Your task to perform on an android device: open device folders in google photos Image 0: 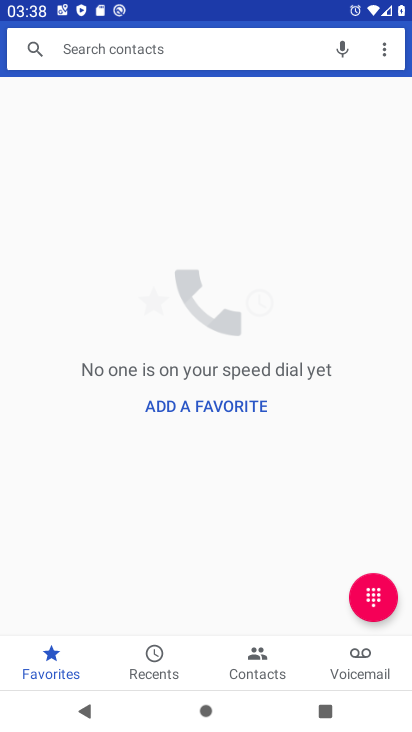
Step 0: press home button
Your task to perform on an android device: open device folders in google photos Image 1: 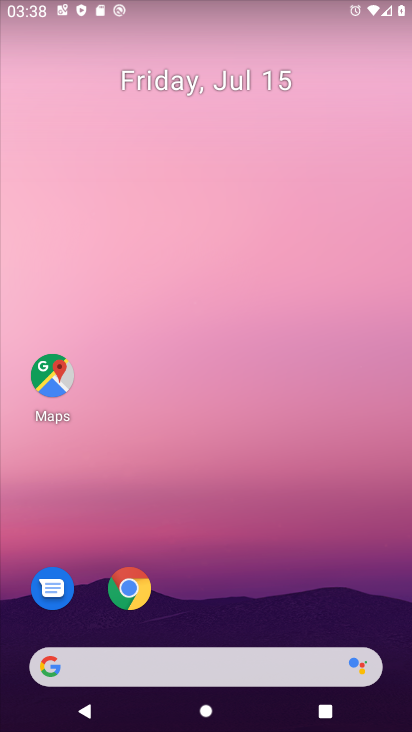
Step 1: drag from (230, 660) to (273, 218)
Your task to perform on an android device: open device folders in google photos Image 2: 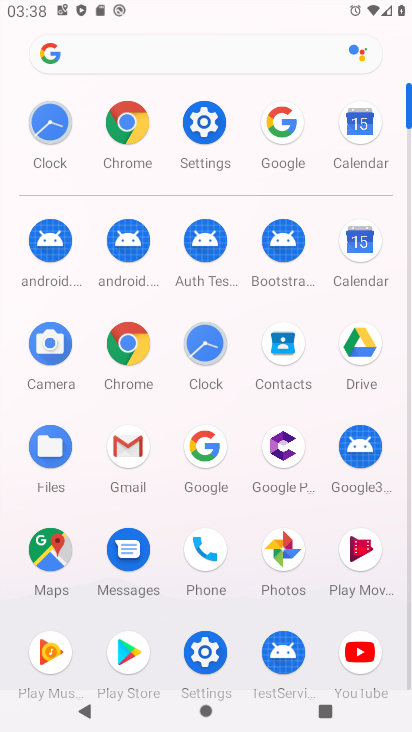
Step 2: click (284, 548)
Your task to perform on an android device: open device folders in google photos Image 3: 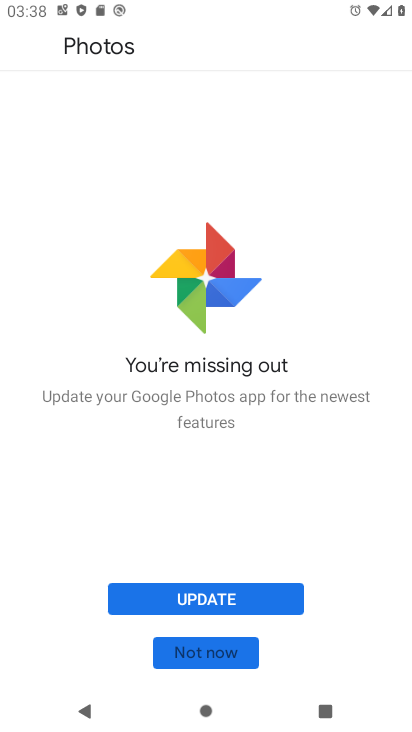
Step 3: click (219, 600)
Your task to perform on an android device: open device folders in google photos Image 4: 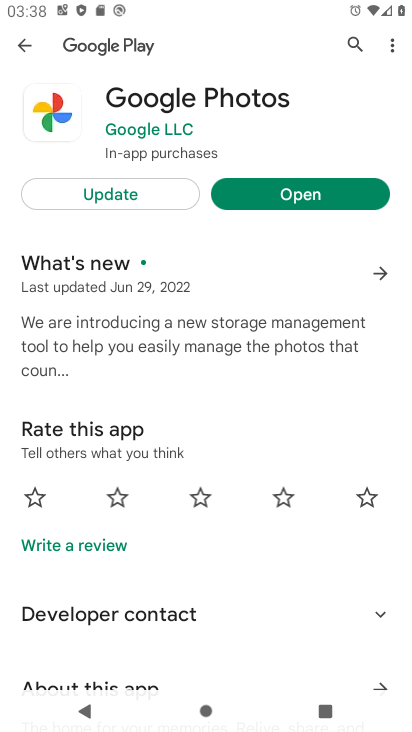
Step 4: click (127, 196)
Your task to perform on an android device: open device folders in google photos Image 5: 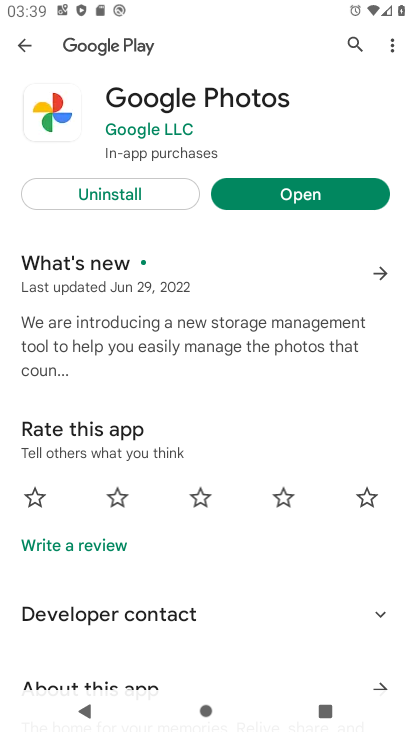
Step 5: click (305, 197)
Your task to perform on an android device: open device folders in google photos Image 6: 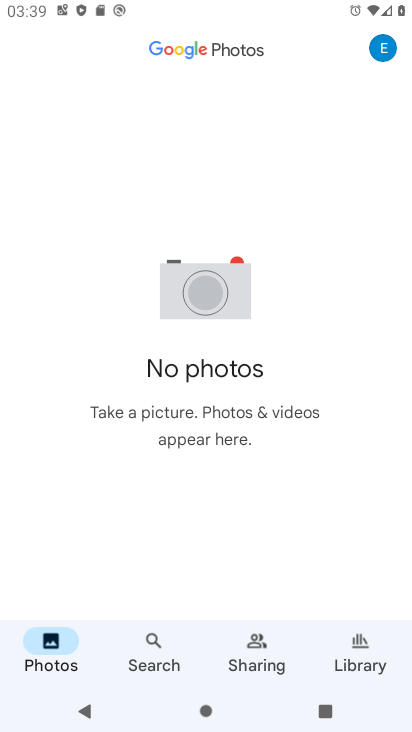
Step 6: click (359, 646)
Your task to perform on an android device: open device folders in google photos Image 7: 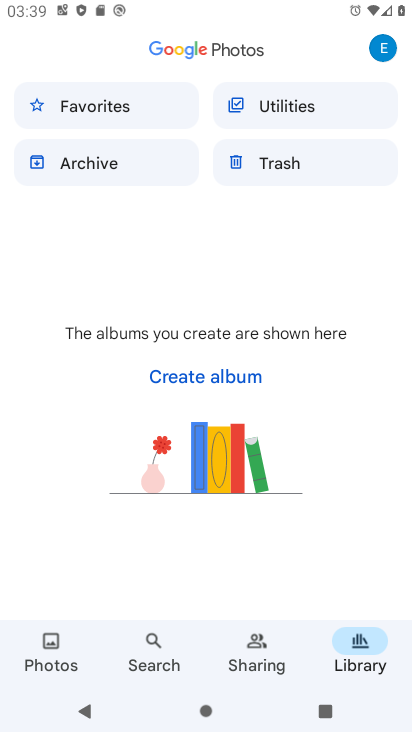
Step 7: click (300, 100)
Your task to perform on an android device: open device folders in google photos Image 8: 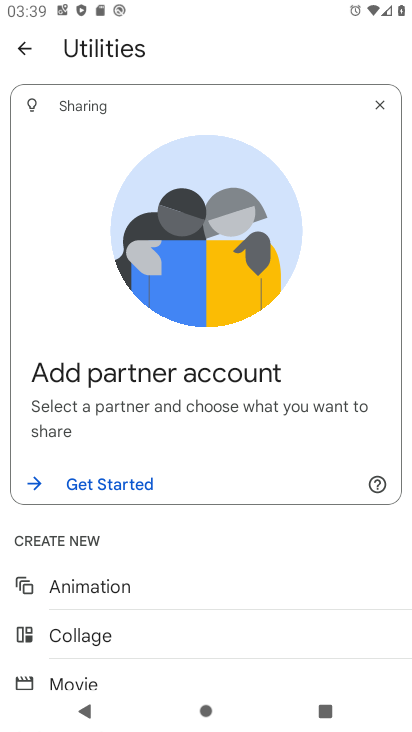
Step 8: drag from (159, 660) to (193, 571)
Your task to perform on an android device: open device folders in google photos Image 9: 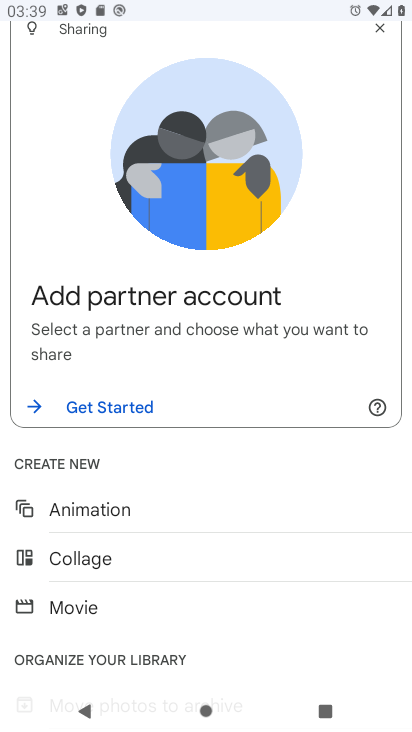
Step 9: drag from (133, 615) to (211, 522)
Your task to perform on an android device: open device folders in google photos Image 10: 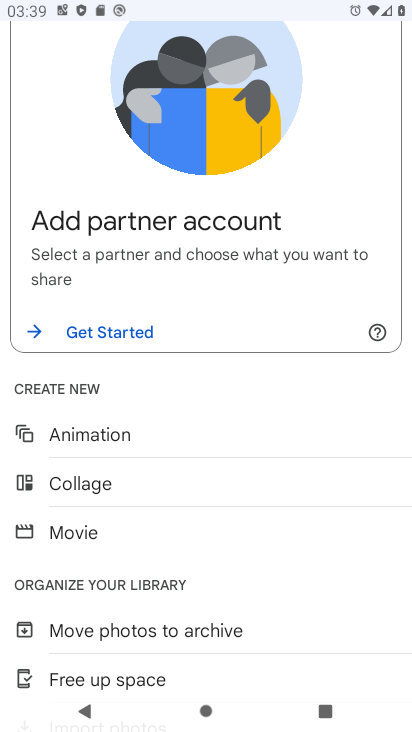
Step 10: drag from (142, 624) to (235, 524)
Your task to perform on an android device: open device folders in google photos Image 11: 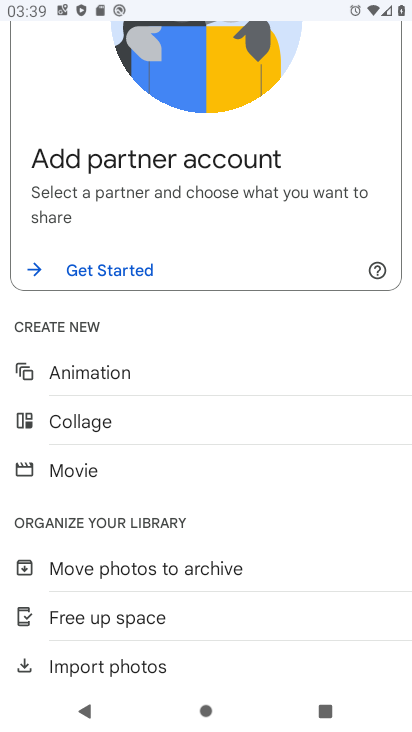
Step 11: drag from (116, 625) to (245, 497)
Your task to perform on an android device: open device folders in google photos Image 12: 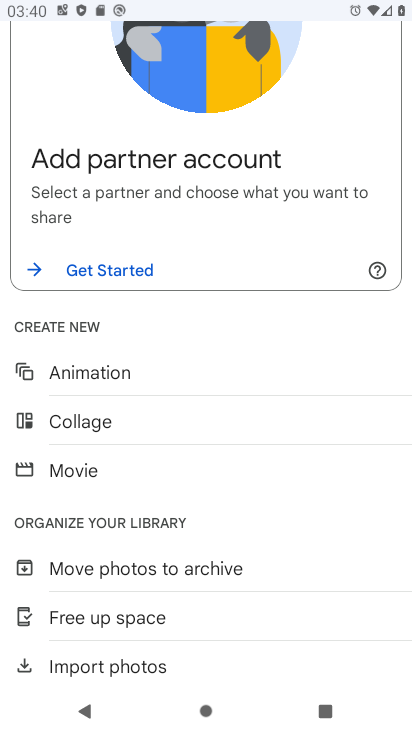
Step 12: drag from (114, 646) to (183, 474)
Your task to perform on an android device: open device folders in google photos Image 13: 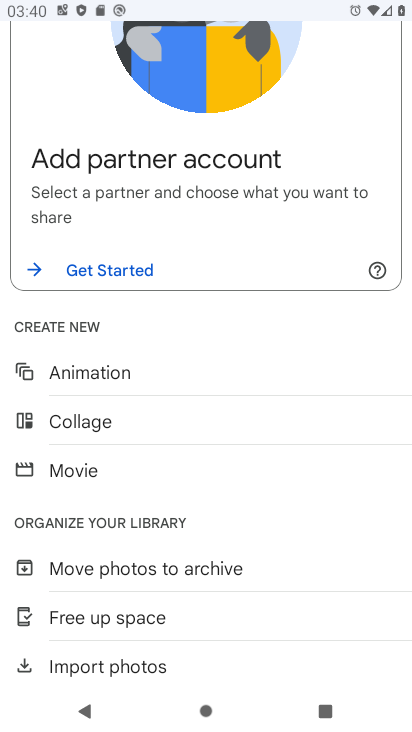
Step 13: press back button
Your task to perform on an android device: open device folders in google photos Image 14: 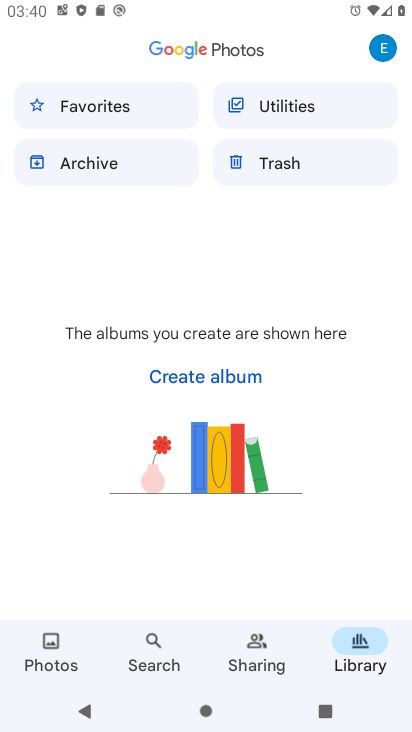
Step 14: click (58, 642)
Your task to perform on an android device: open device folders in google photos Image 15: 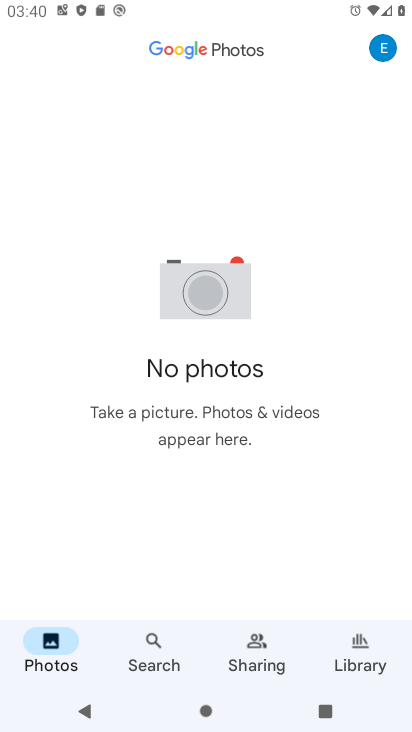
Step 15: click (141, 646)
Your task to perform on an android device: open device folders in google photos Image 16: 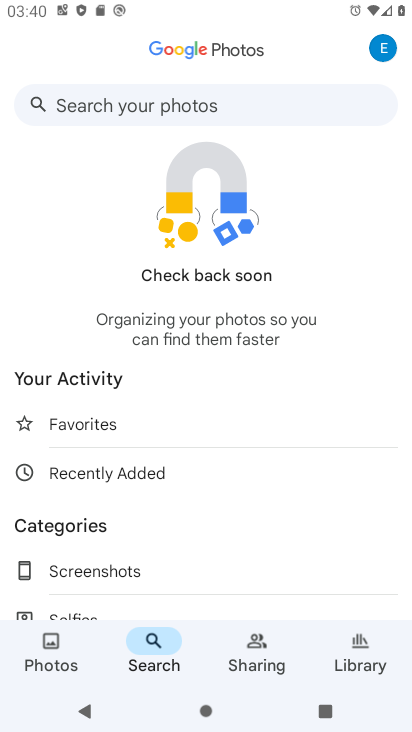
Step 16: drag from (141, 569) to (135, 465)
Your task to perform on an android device: open device folders in google photos Image 17: 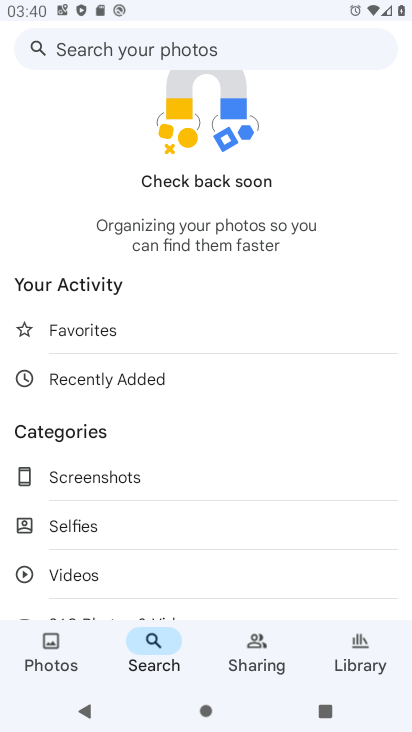
Step 17: drag from (104, 528) to (142, 436)
Your task to perform on an android device: open device folders in google photos Image 18: 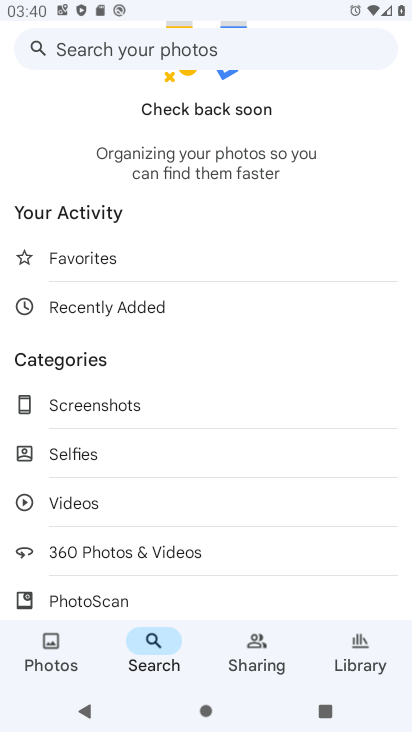
Step 18: drag from (114, 565) to (164, 458)
Your task to perform on an android device: open device folders in google photos Image 19: 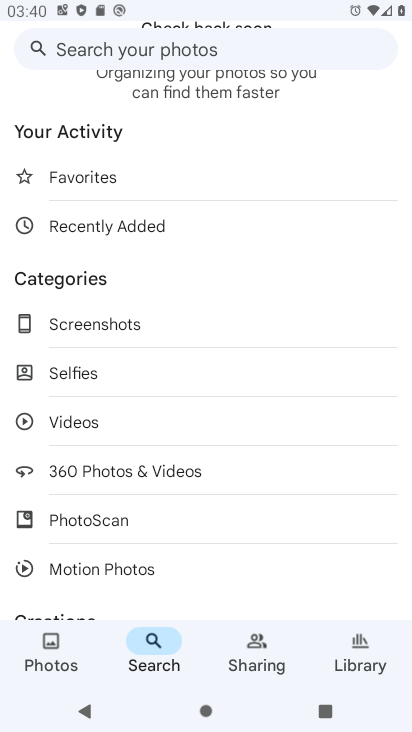
Step 19: drag from (104, 549) to (169, 456)
Your task to perform on an android device: open device folders in google photos Image 20: 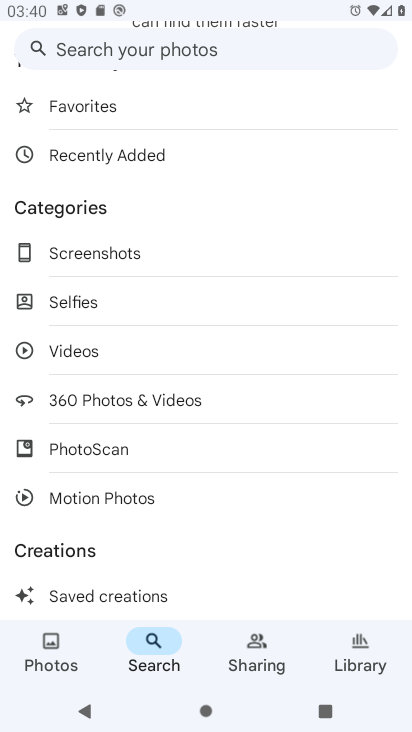
Step 20: drag from (107, 544) to (159, 424)
Your task to perform on an android device: open device folders in google photos Image 21: 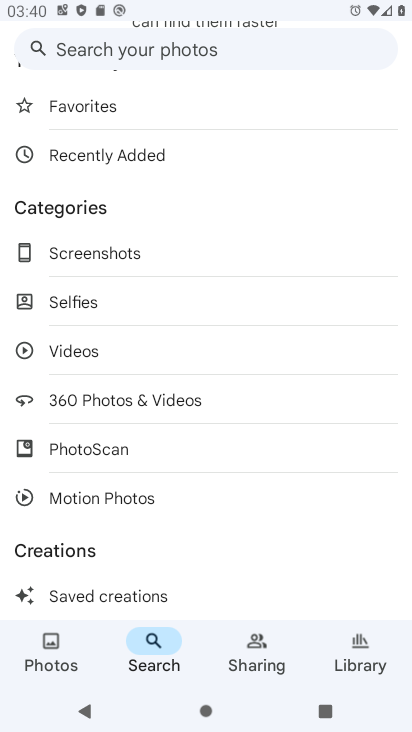
Step 21: click (267, 647)
Your task to perform on an android device: open device folders in google photos Image 22: 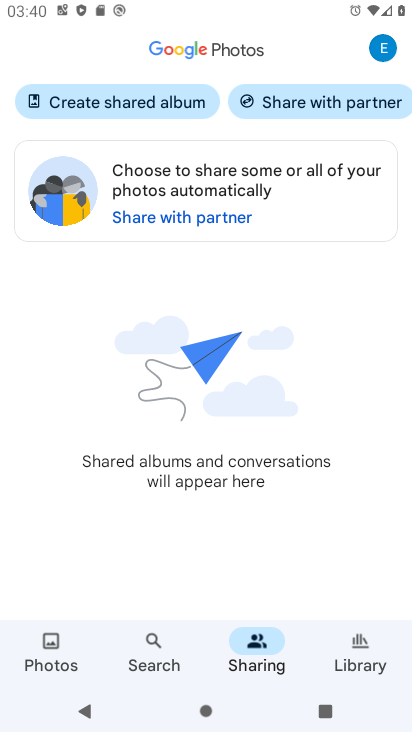
Step 22: click (356, 645)
Your task to perform on an android device: open device folders in google photos Image 23: 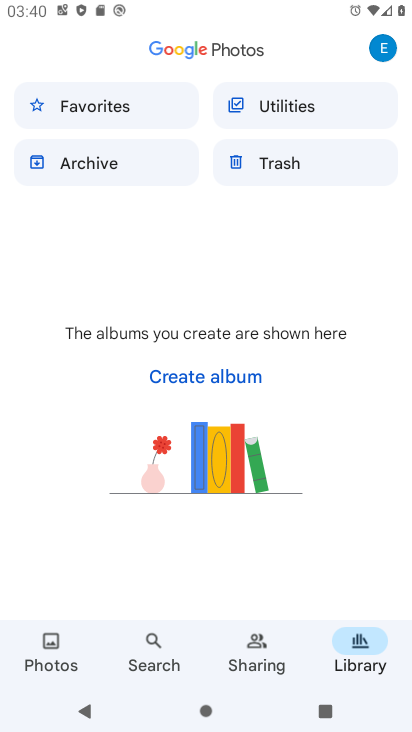
Step 23: click (391, 56)
Your task to perform on an android device: open device folders in google photos Image 24: 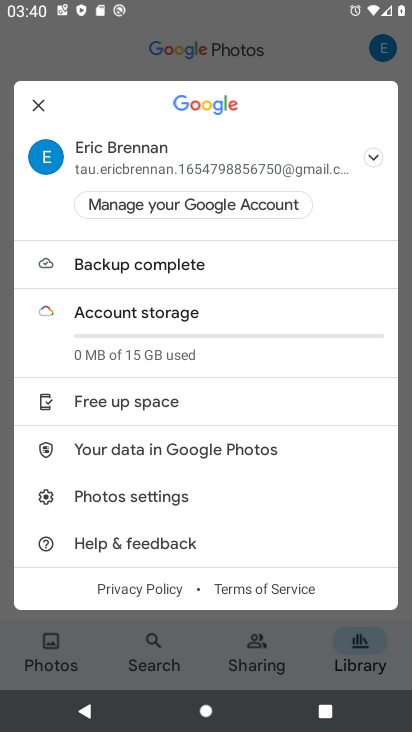
Step 24: click (147, 496)
Your task to perform on an android device: open device folders in google photos Image 25: 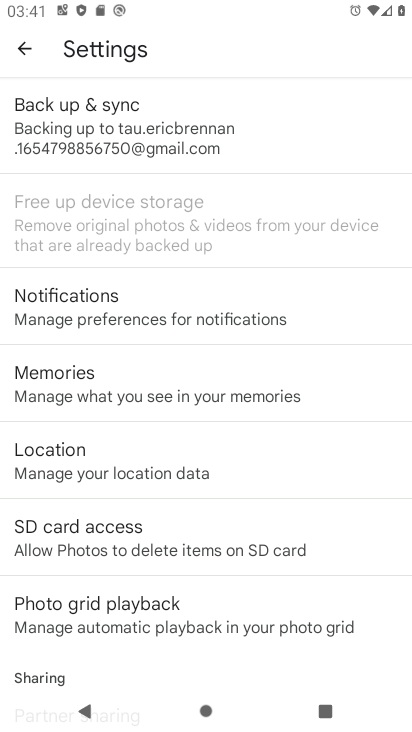
Step 25: task complete